Your task to perform on an android device: read, delete, or share a saved page in the chrome app Image 0: 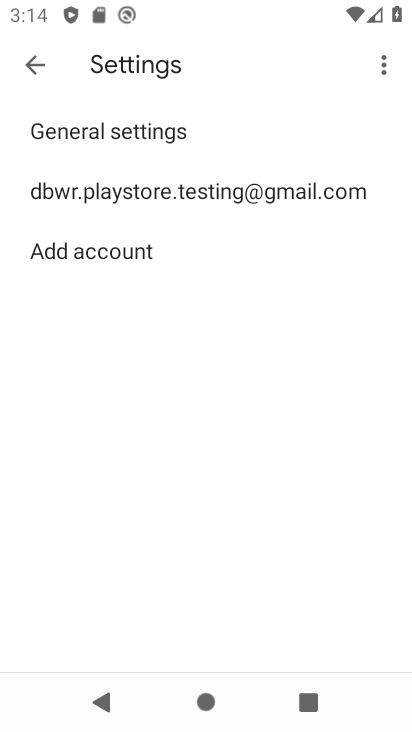
Step 0: press home button
Your task to perform on an android device: read, delete, or share a saved page in the chrome app Image 1: 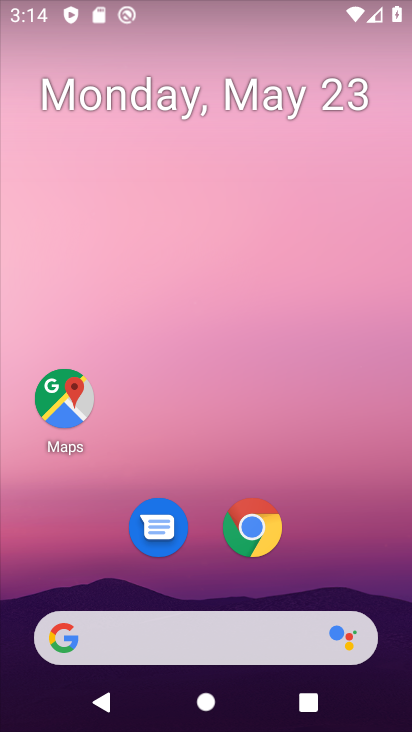
Step 1: click (268, 532)
Your task to perform on an android device: read, delete, or share a saved page in the chrome app Image 2: 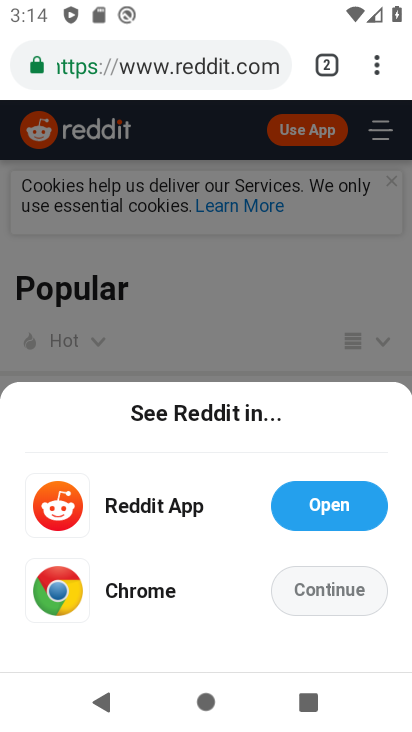
Step 2: click (377, 59)
Your task to perform on an android device: read, delete, or share a saved page in the chrome app Image 3: 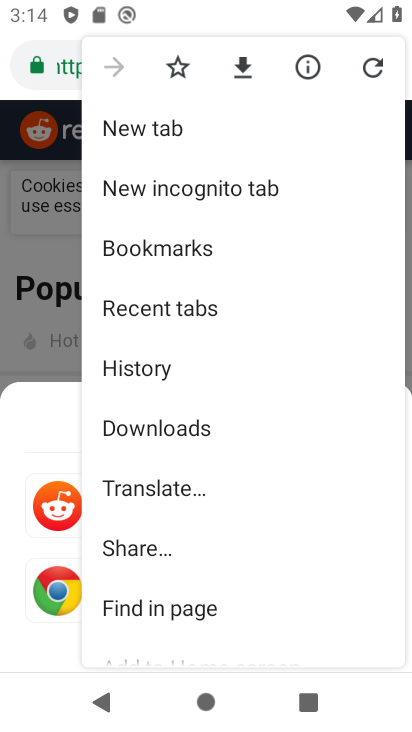
Step 3: click (217, 427)
Your task to perform on an android device: read, delete, or share a saved page in the chrome app Image 4: 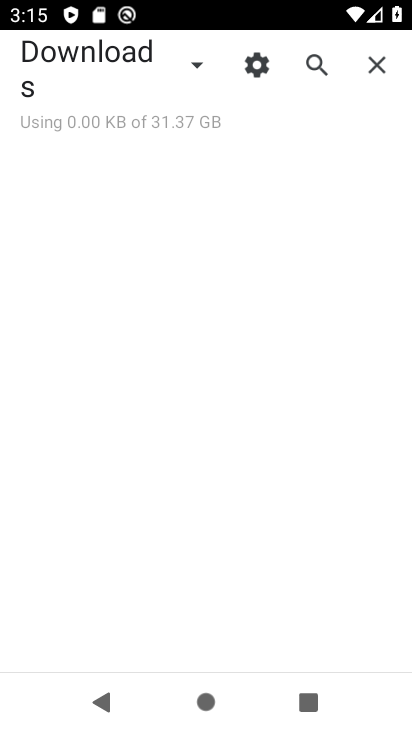
Step 4: task complete